Your task to perform on an android device: Open calendar and show me the second week of next month Image 0: 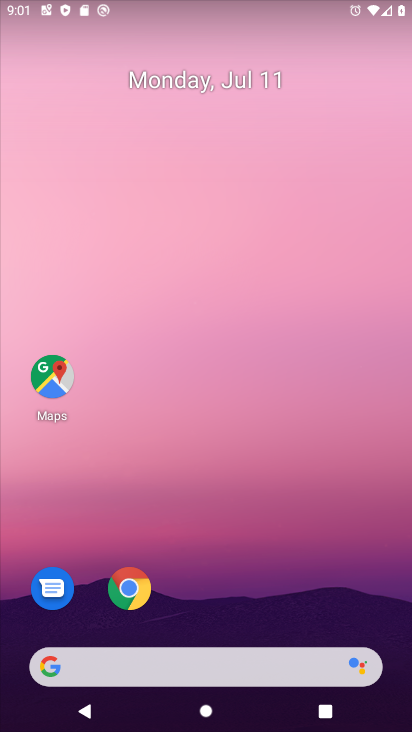
Step 0: drag from (212, 630) to (282, 51)
Your task to perform on an android device: Open calendar and show me the second week of next month Image 1: 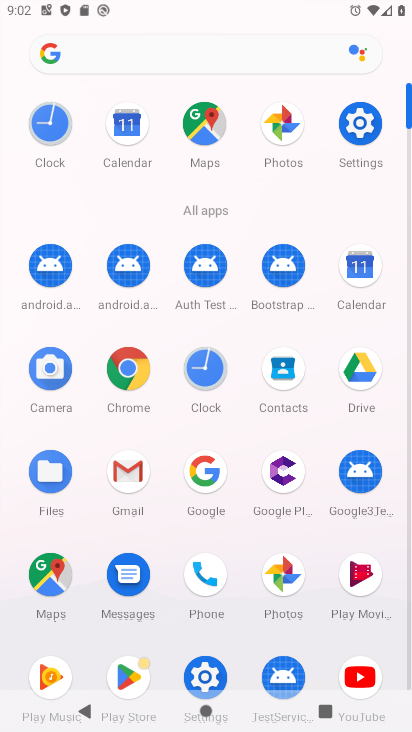
Step 1: click (352, 277)
Your task to perform on an android device: Open calendar and show me the second week of next month Image 2: 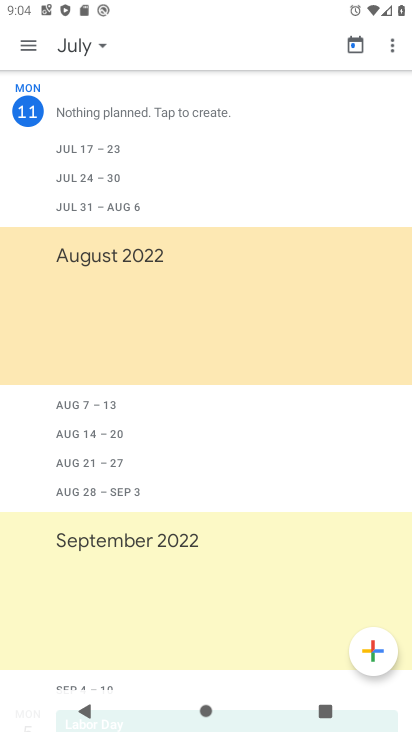
Step 2: click (99, 44)
Your task to perform on an android device: Open calendar and show me the second week of next month Image 3: 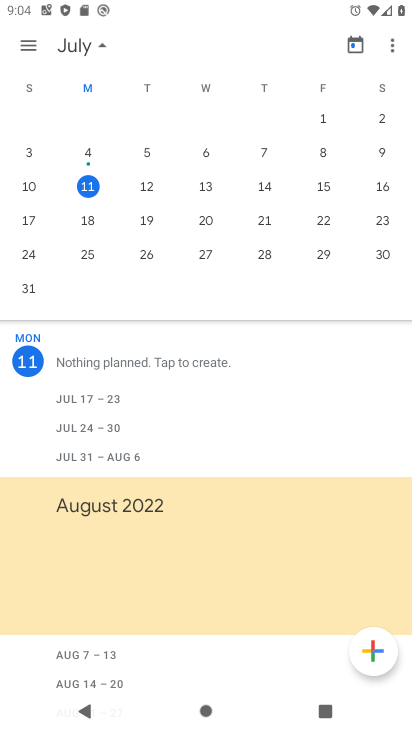
Step 3: drag from (389, 218) to (7, 175)
Your task to perform on an android device: Open calendar and show me the second week of next month Image 4: 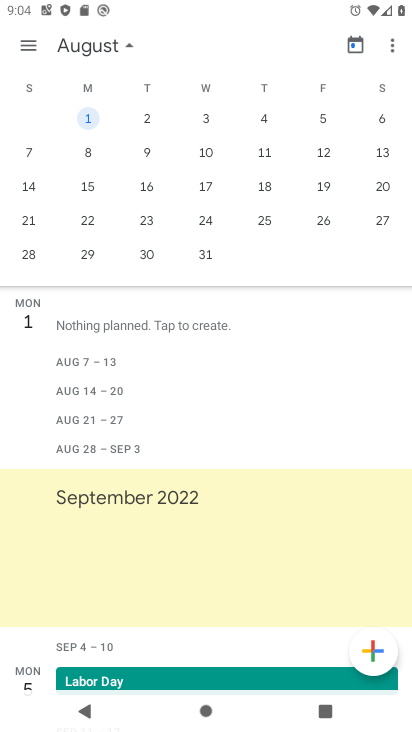
Step 4: click (92, 148)
Your task to perform on an android device: Open calendar and show me the second week of next month Image 5: 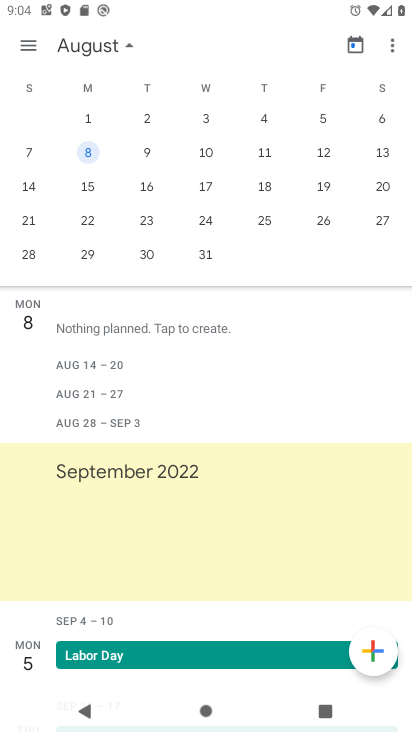
Step 5: task complete